Your task to perform on an android device: make emails show in primary in the gmail app Image 0: 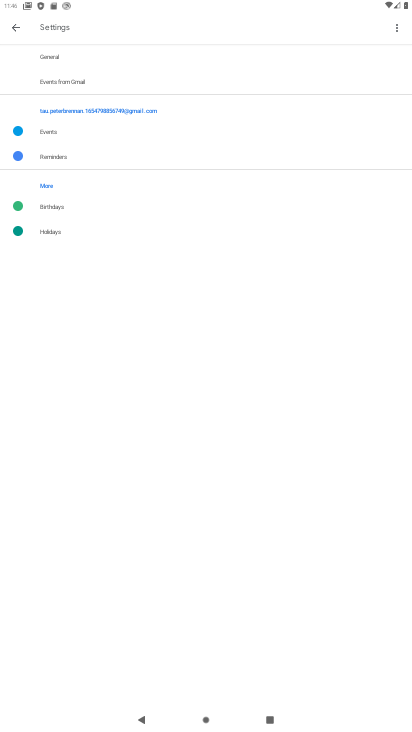
Step 0: press home button
Your task to perform on an android device: make emails show in primary in the gmail app Image 1: 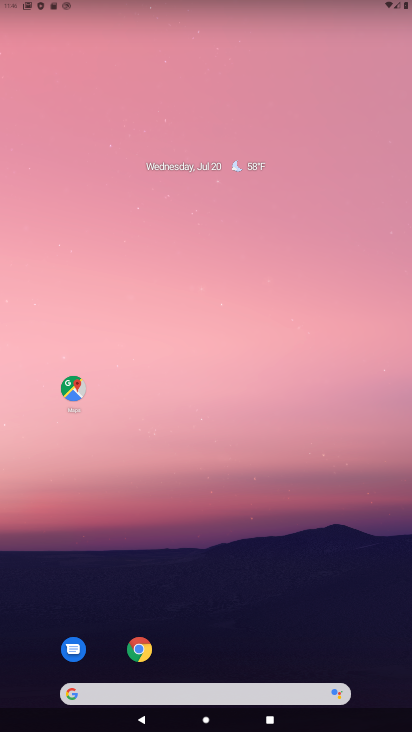
Step 1: drag from (207, 600) to (208, 141)
Your task to perform on an android device: make emails show in primary in the gmail app Image 2: 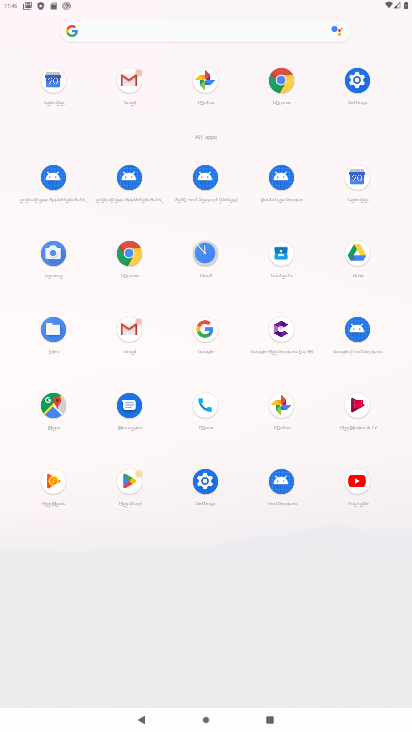
Step 2: click (125, 330)
Your task to perform on an android device: make emails show in primary in the gmail app Image 3: 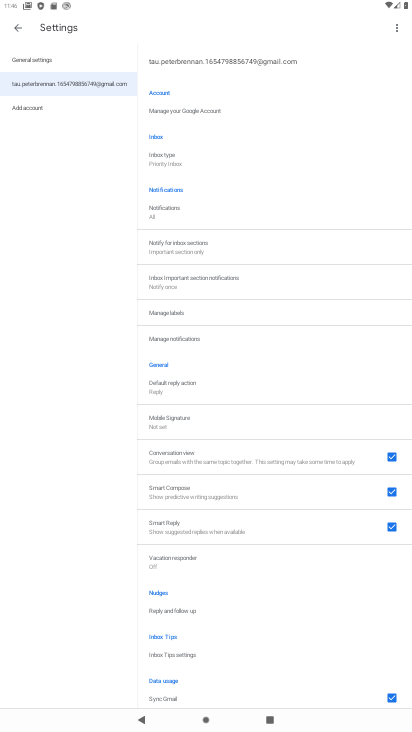
Step 3: click (171, 165)
Your task to perform on an android device: make emails show in primary in the gmail app Image 4: 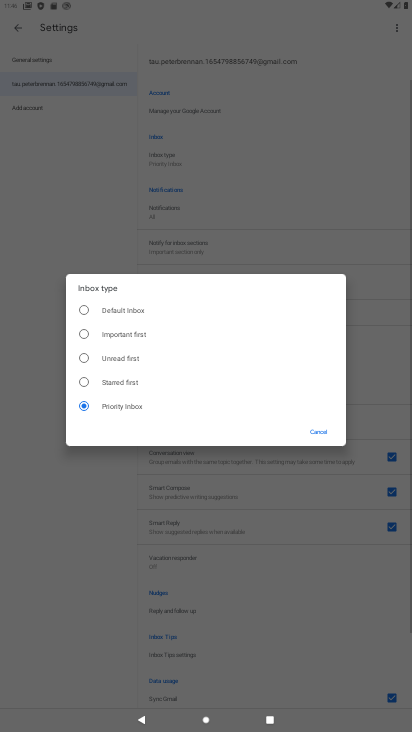
Step 4: click (79, 311)
Your task to perform on an android device: make emails show in primary in the gmail app Image 5: 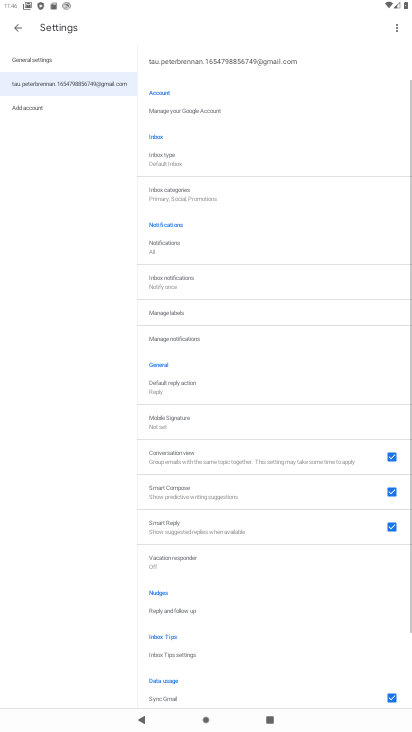
Step 5: click (179, 196)
Your task to perform on an android device: make emails show in primary in the gmail app Image 6: 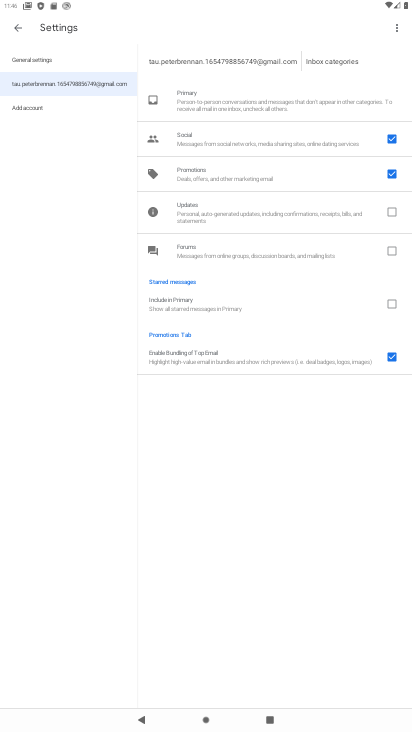
Step 6: click (392, 137)
Your task to perform on an android device: make emails show in primary in the gmail app Image 7: 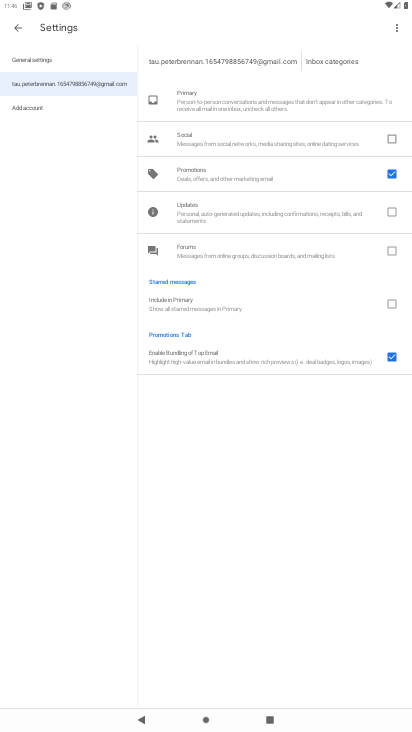
Step 7: click (391, 178)
Your task to perform on an android device: make emails show in primary in the gmail app Image 8: 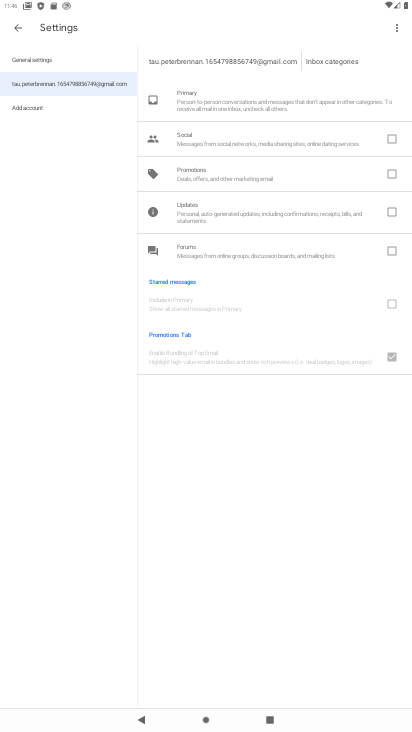
Step 8: task complete